Your task to perform on an android device: set the timer Image 0: 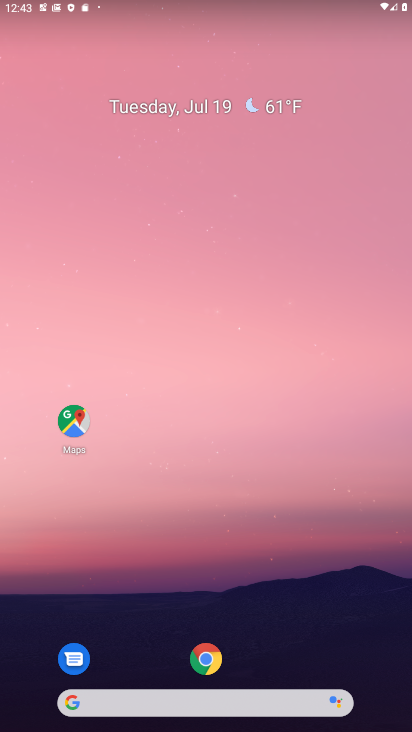
Step 0: press home button
Your task to perform on an android device: set the timer Image 1: 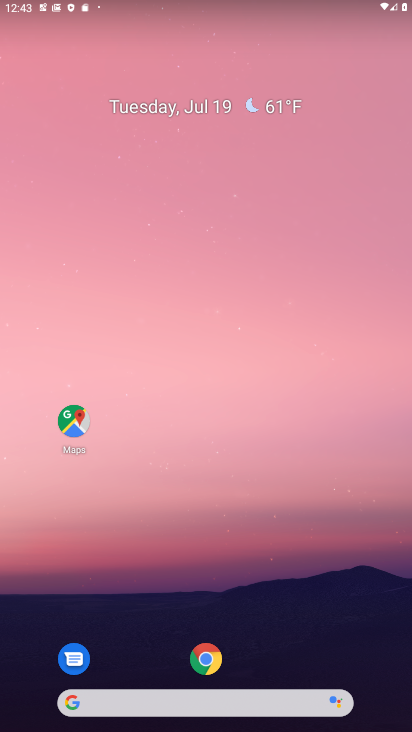
Step 1: drag from (395, 653) to (360, 0)
Your task to perform on an android device: set the timer Image 2: 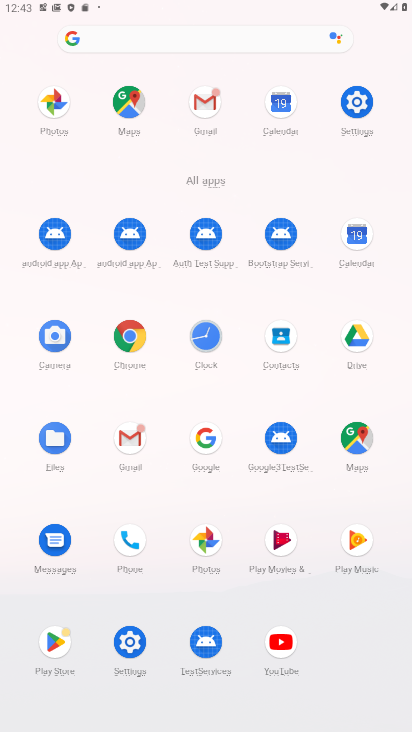
Step 2: click (353, 105)
Your task to perform on an android device: set the timer Image 3: 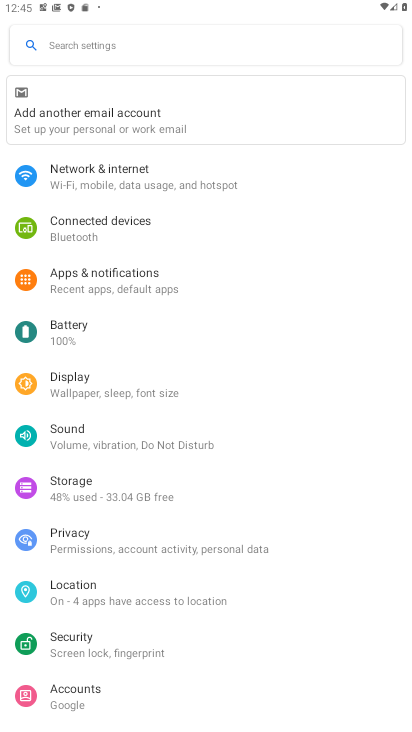
Step 3: press home button
Your task to perform on an android device: set the timer Image 4: 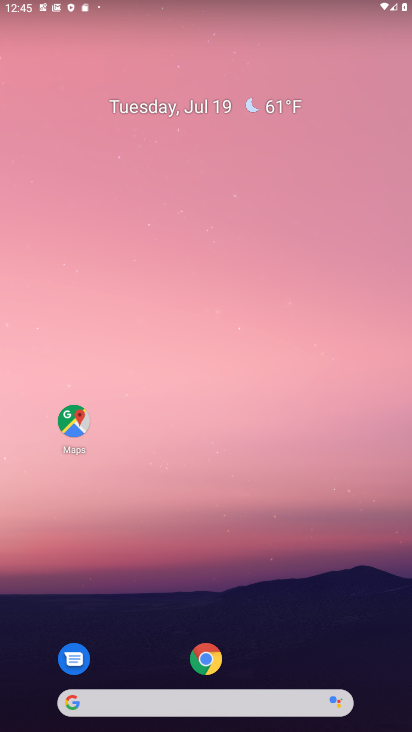
Step 4: drag from (362, 646) to (292, 146)
Your task to perform on an android device: set the timer Image 5: 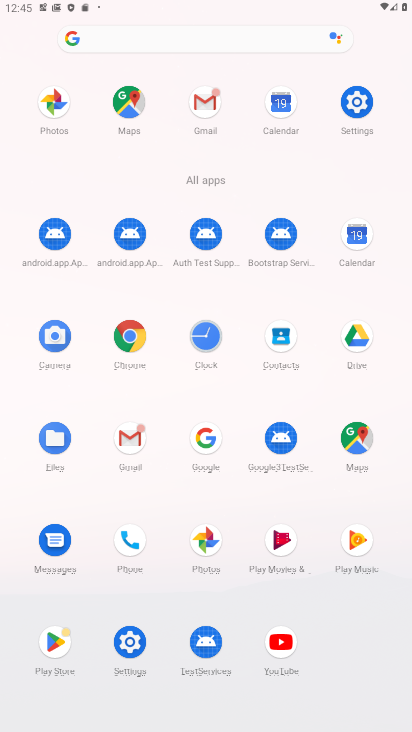
Step 5: click (208, 337)
Your task to perform on an android device: set the timer Image 6: 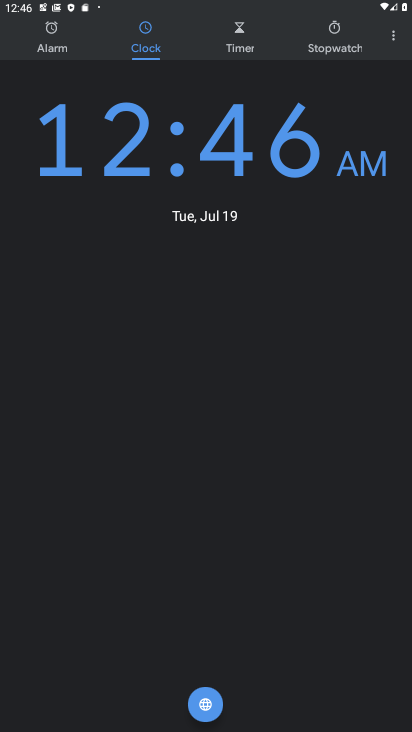
Step 6: click (241, 41)
Your task to perform on an android device: set the timer Image 7: 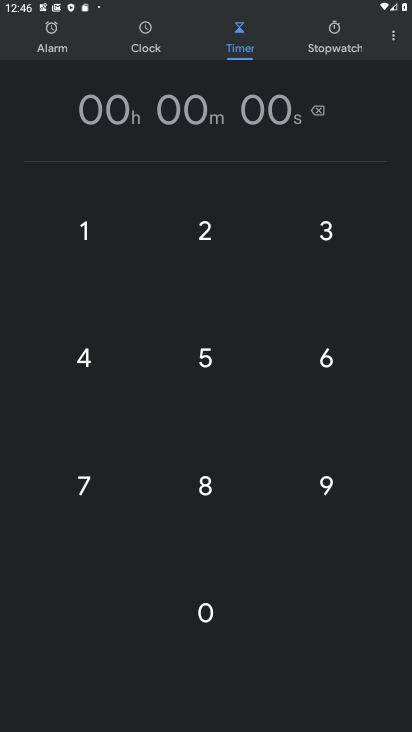
Step 7: click (211, 346)
Your task to perform on an android device: set the timer Image 8: 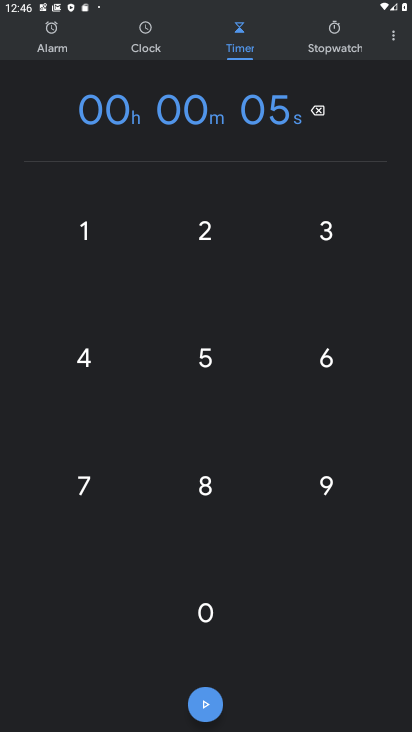
Step 8: click (206, 356)
Your task to perform on an android device: set the timer Image 9: 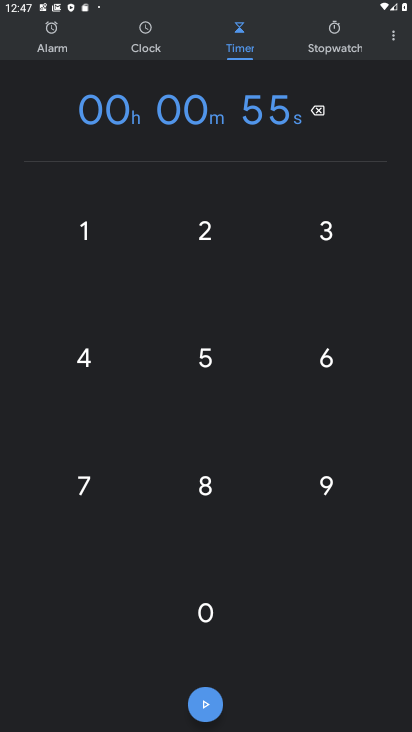
Step 9: task complete